Your task to perform on an android device: Go to sound settings Image 0: 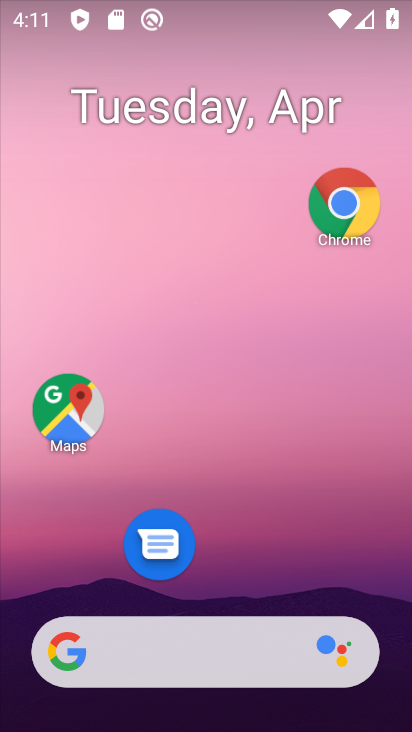
Step 0: drag from (253, 581) to (323, 18)
Your task to perform on an android device: Go to sound settings Image 1: 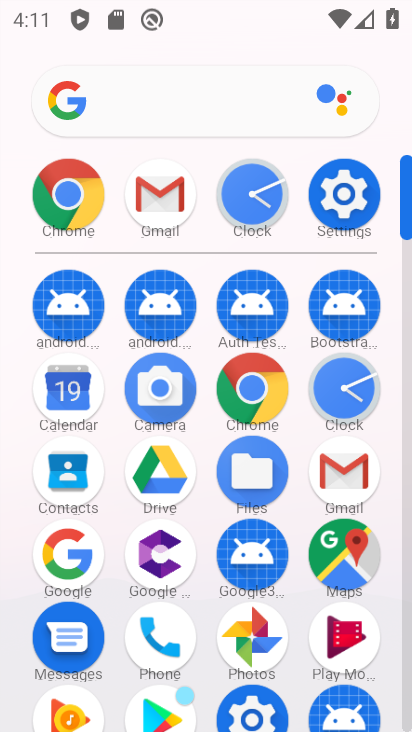
Step 1: click (361, 204)
Your task to perform on an android device: Go to sound settings Image 2: 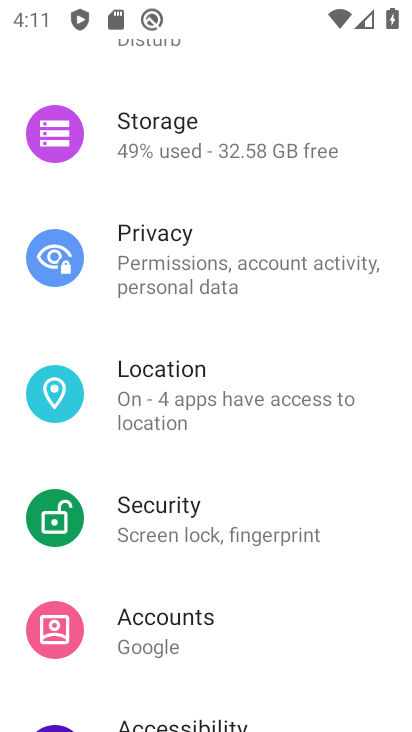
Step 2: drag from (195, 226) to (137, 728)
Your task to perform on an android device: Go to sound settings Image 3: 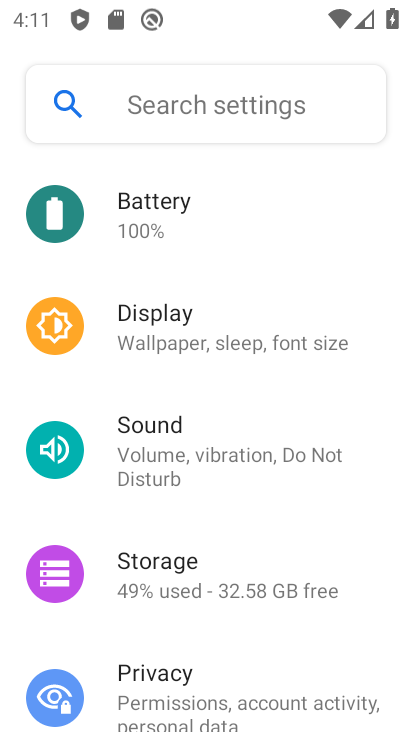
Step 3: click (193, 442)
Your task to perform on an android device: Go to sound settings Image 4: 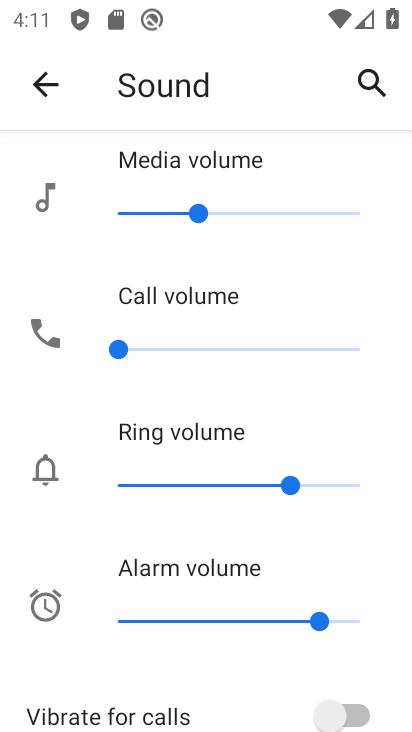
Step 4: task complete